Your task to perform on an android device: turn off data saver in the chrome app Image 0: 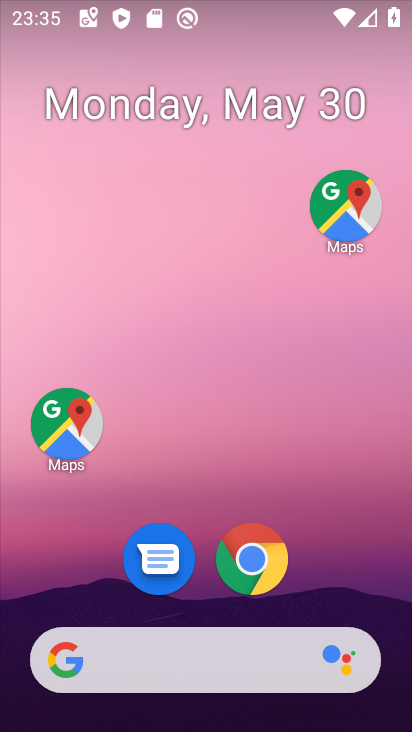
Step 0: click (249, 555)
Your task to perform on an android device: turn off data saver in the chrome app Image 1: 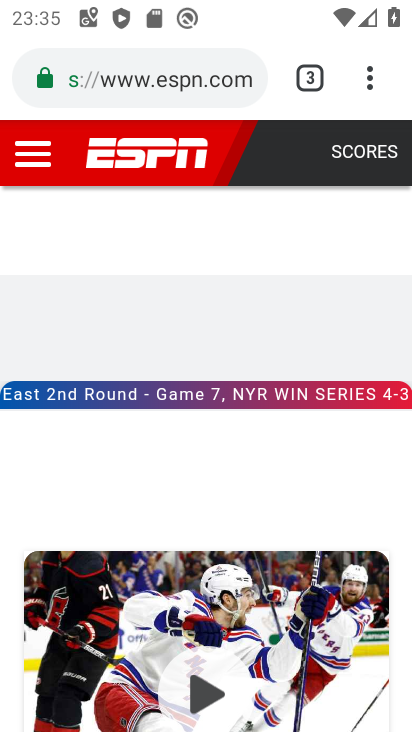
Step 1: drag from (384, 60) to (280, 598)
Your task to perform on an android device: turn off data saver in the chrome app Image 2: 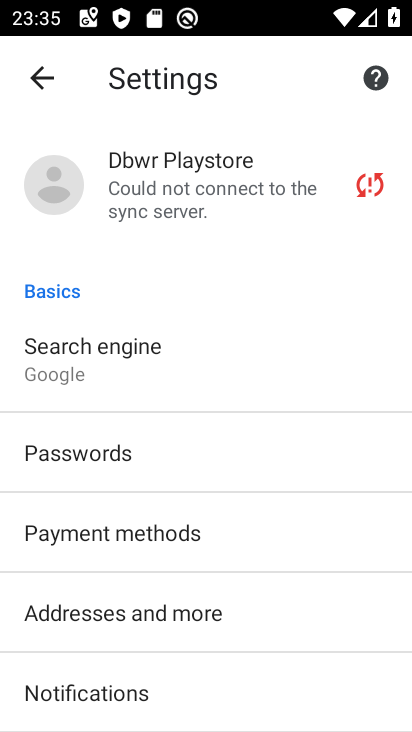
Step 2: drag from (257, 613) to (243, 139)
Your task to perform on an android device: turn off data saver in the chrome app Image 3: 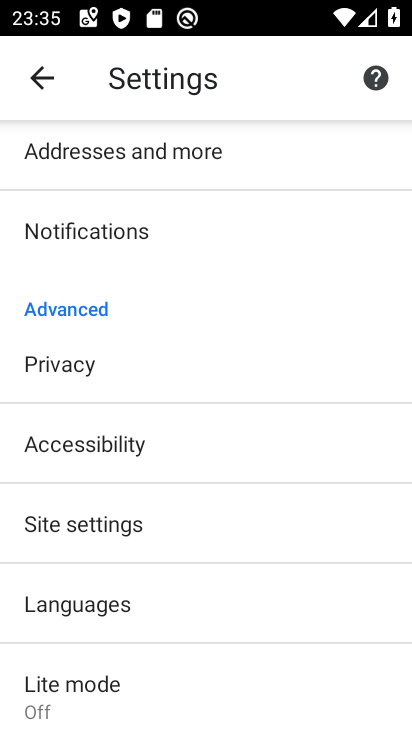
Step 3: click (96, 677)
Your task to perform on an android device: turn off data saver in the chrome app Image 4: 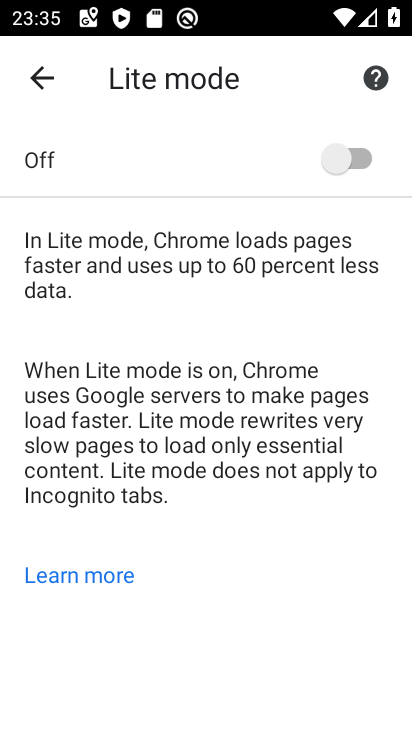
Step 4: task complete